Your task to perform on an android device: Go to settings Image 0: 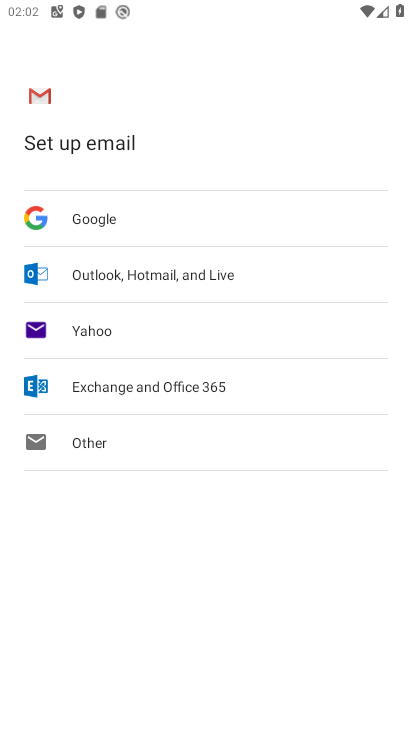
Step 0: press home button
Your task to perform on an android device: Go to settings Image 1: 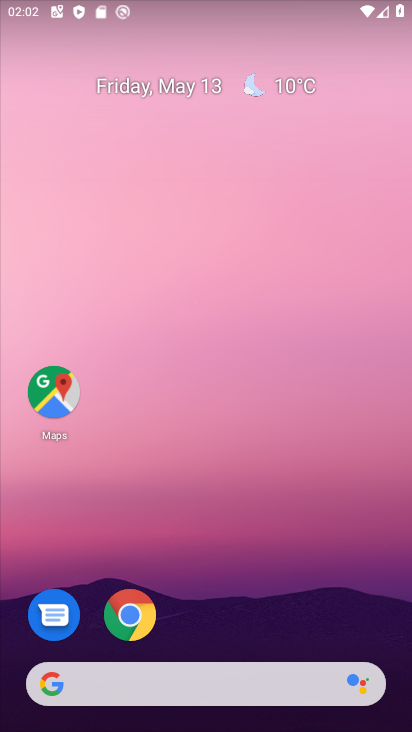
Step 1: drag from (198, 557) to (108, 66)
Your task to perform on an android device: Go to settings Image 2: 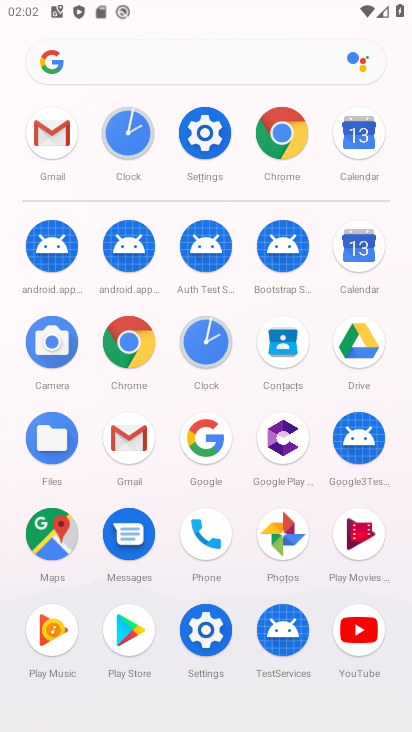
Step 2: click (212, 143)
Your task to perform on an android device: Go to settings Image 3: 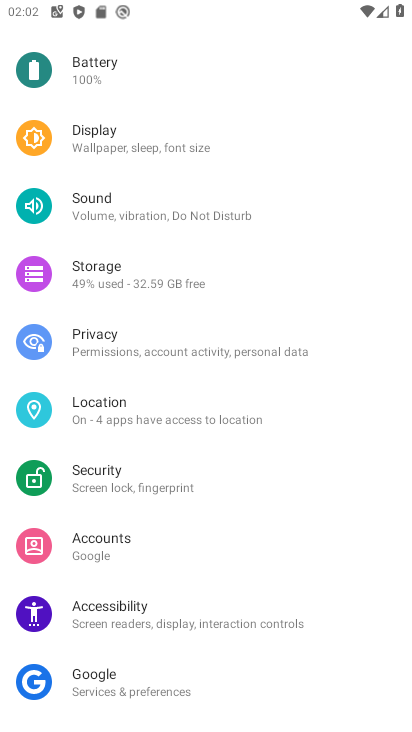
Step 3: task complete